Your task to perform on an android device: Search for flights from Tokyo to NYC Image 0: 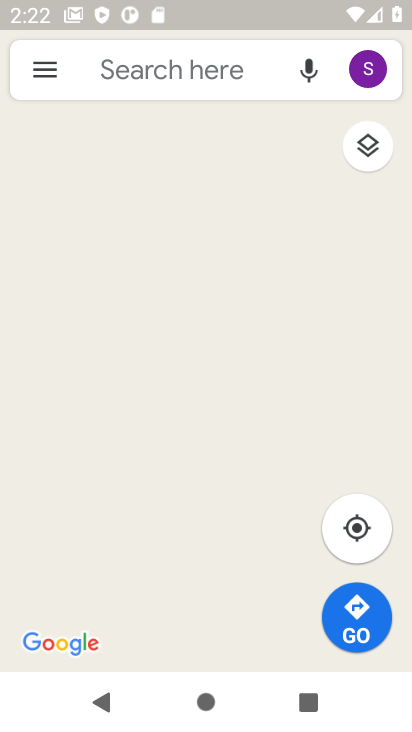
Step 0: press home button
Your task to perform on an android device: Search for flights from Tokyo to NYC Image 1: 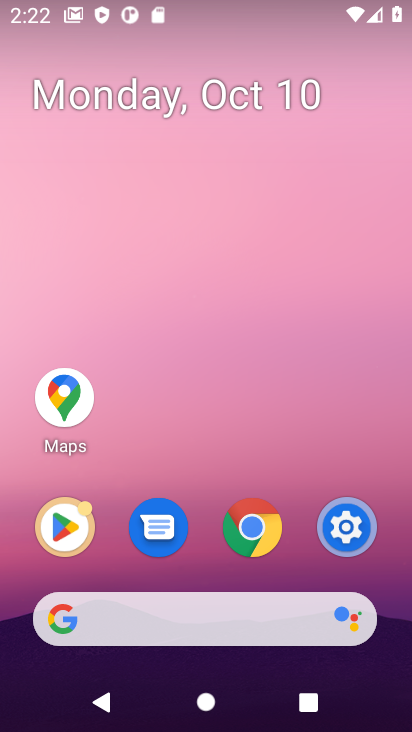
Step 1: click (200, 619)
Your task to perform on an android device: Search for flights from Tokyo to NYC Image 2: 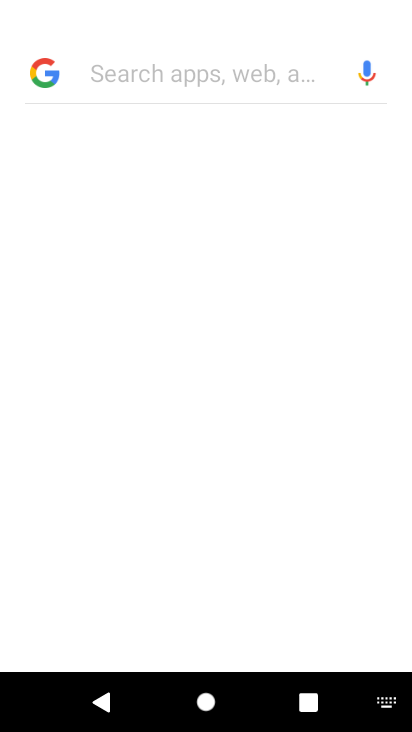
Step 2: click (200, 619)
Your task to perform on an android device: Search for flights from Tokyo to NYC Image 3: 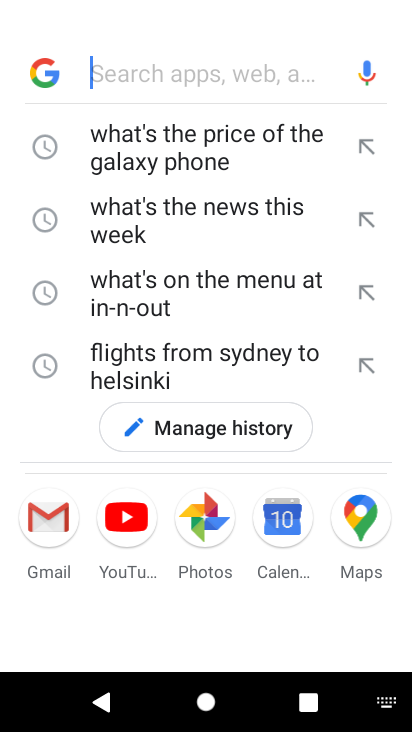
Step 3: type " flights from Tokyo to NYC"
Your task to perform on an android device: Search for flights from Tokyo to NYC Image 4: 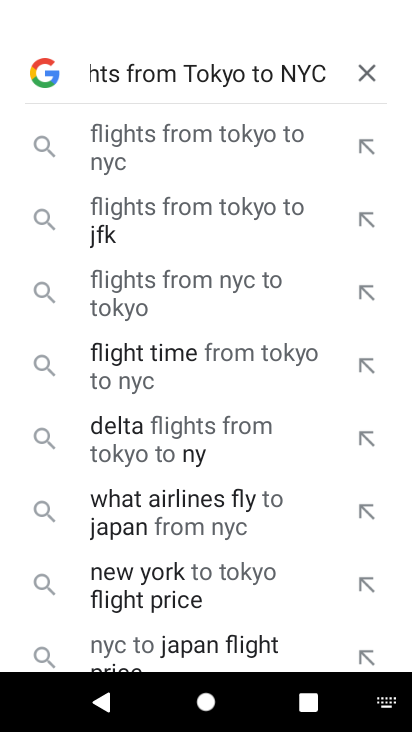
Step 4: press enter
Your task to perform on an android device: Search for flights from Tokyo to NYC Image 5: 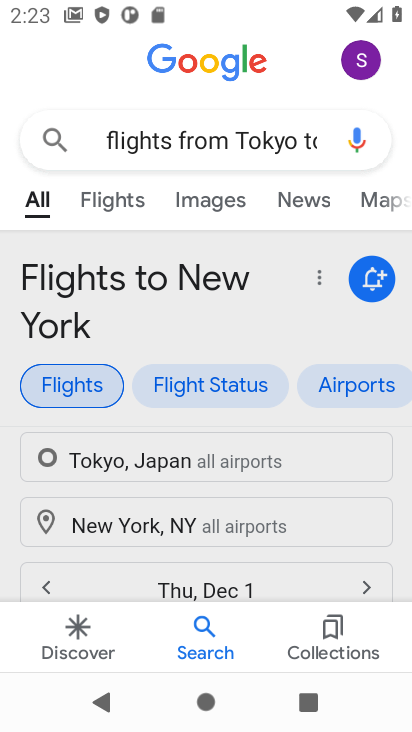
Step 5: drag from (305, 539) to (290, 364)
Your task to perform on an android device: Search for flights from Tokyo to NYC Image 6: 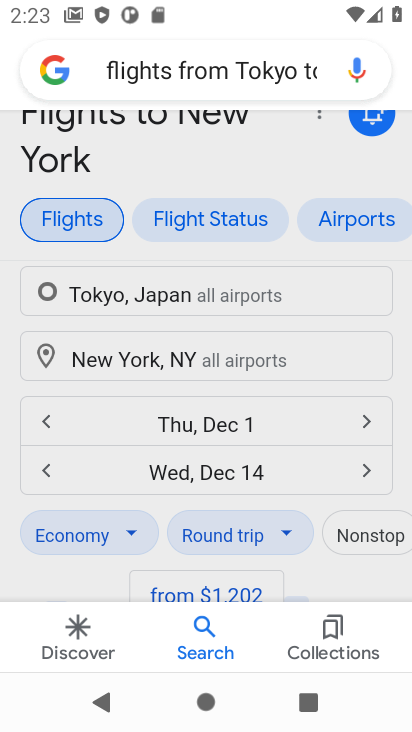
Step 6: drag from (312, 565) to (285, 328)
Your task to perform on an android device: Search for flights from Tokyo to NYC Image 7: 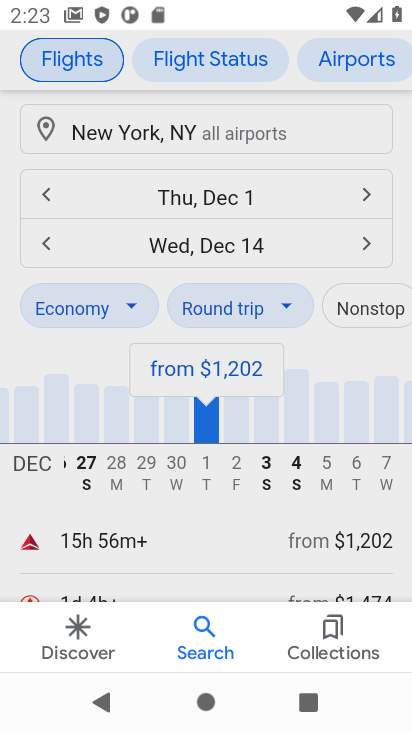
Step 7: drag from (259, 518) to (263, 260)
Your task to perform on an android device: Search for flights from Tokyo to NYC Image 8: 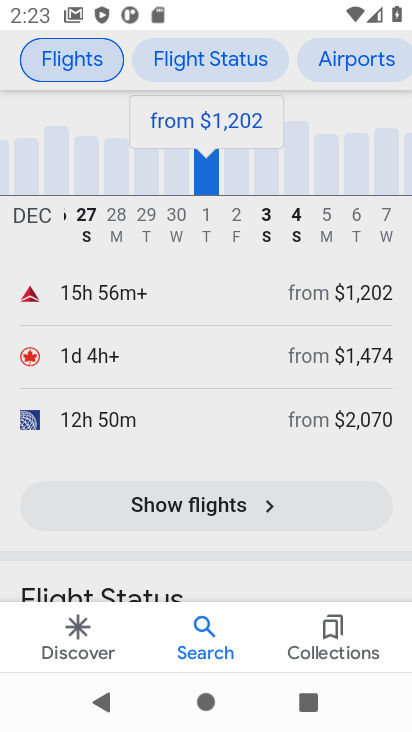
Step 8: click (226, 505)
Your task to perform on an android device: Search for flights from Tokyo to NYC Image 9: 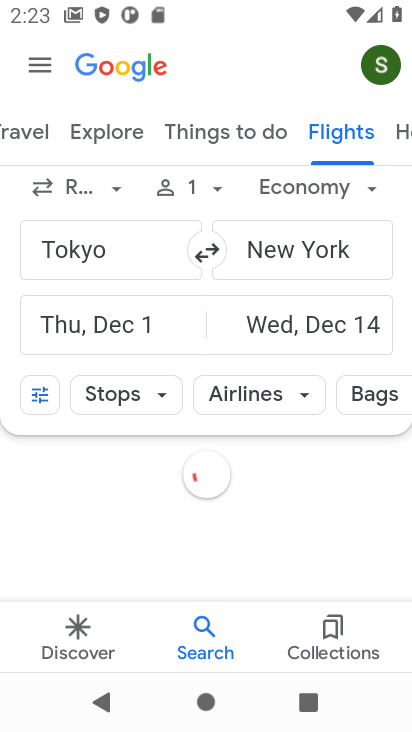
Step 9: task complete